Your task to perform on an android device: Add jbl flip 4 to the cart on amazon.com Image 0: 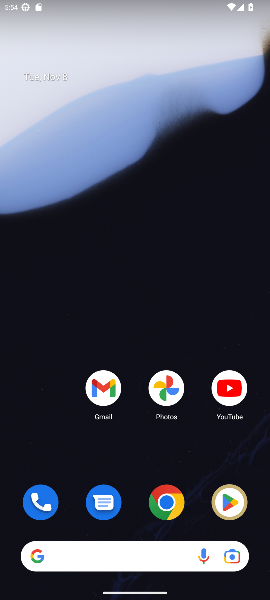
Step 0: drag from (107, 538) to (102, 80)
Your task to perform on an android device: Add jbl flip 4 to the cart on amazon.com Image 1: 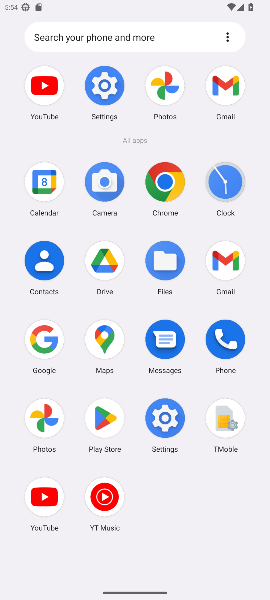
Step 1: click (34, 328)
Your task to perform on an android device: Add jbl flip 4 to the cart on amazon.com Image 2: 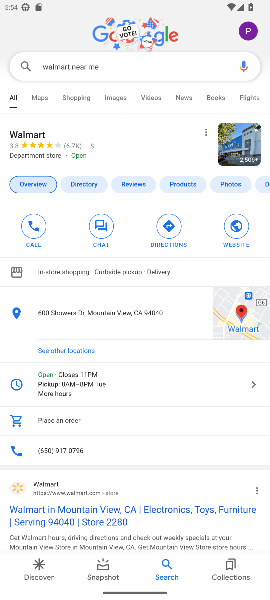
Step 2: click (50, 325)
Your task to perform on an android device: Add jbl flip 4 to the cart on amazon.com Image 3: 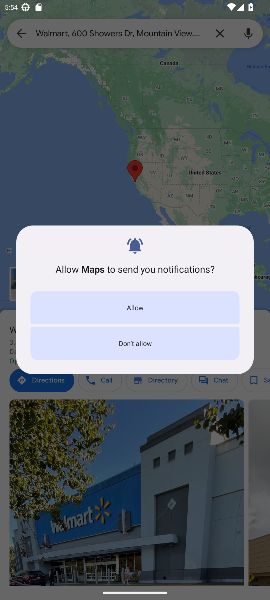
Step 3: press back button
Your task to perform on an android device: Add jbl flip 4 to the cart on amazon.com Image 4: 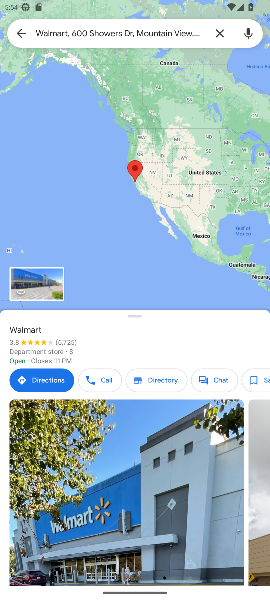
Step 4: press back button
Your task to perform on an android device: Add jbl flip 4 to the cart on amazon.com Image 5: 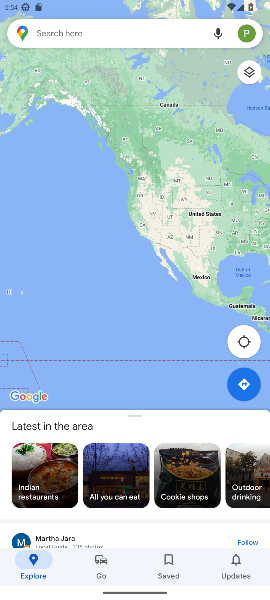
Step 5: press home button
Your task to perform on an android device: Add jbl flip 4 to the cart on amazon.com Image 6: 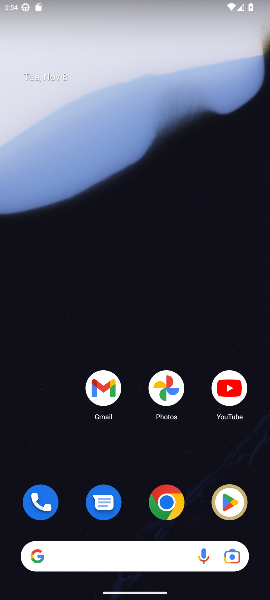
Step 6: drag from (151, 521) to (143, 131)
Your task to perform on an android device: Add jbl flip 4 to the cart on amazon.com Image 7: 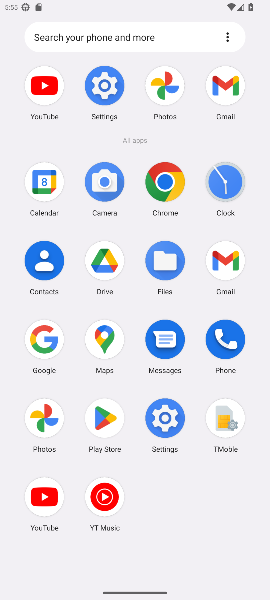
Step 7: click (39, 334)
Your task to perform on an android device: Add jbl flip 4 to the cart on amazon.com Image 8: 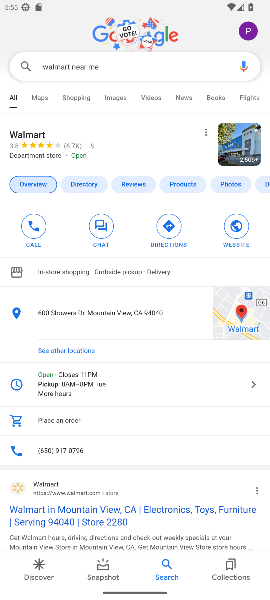
Step 8: click (97, 63)
Your task to perform on an android device: Add jbl flip 4 to the cart on amazon.com Image 9: 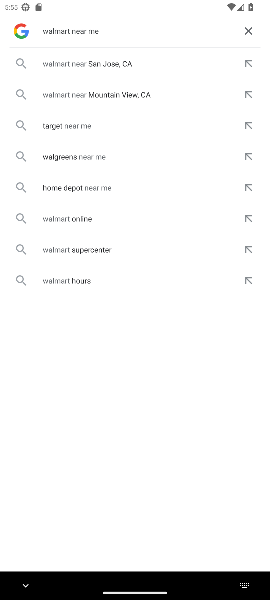
Step 9: click (246, 35)
Your task to perform on an android device: Add jbl flip 4 to the cart on amazon.com Image 10: 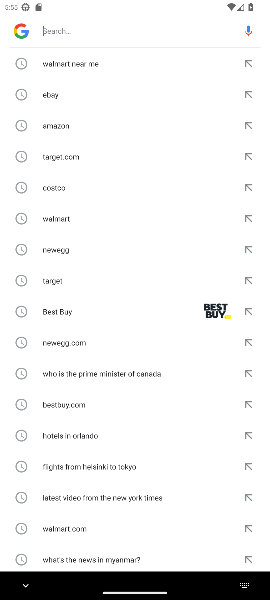
Step 10: click (105, 28)
Your task to perform on an android device: Add jbl flip 4 to the cart on amazon.com Image 11: 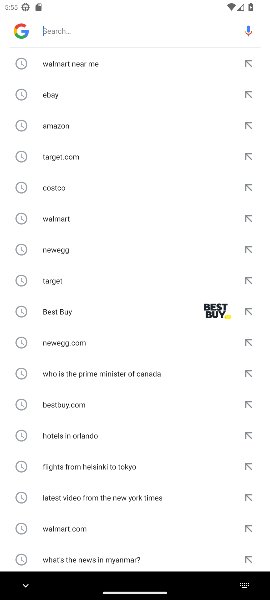
Step 11: type "amazon "
Your task to perform on an android device: Add jbl flip 4 to the cart on amazon.com Image 12: 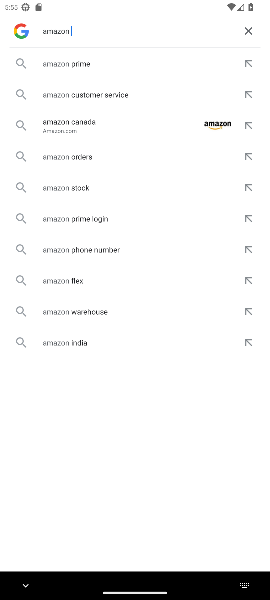
Step 12: click (78, 67)
Your task to perform on an android device: Add jbl flip 4 to the cart on amazon.com Image 13: 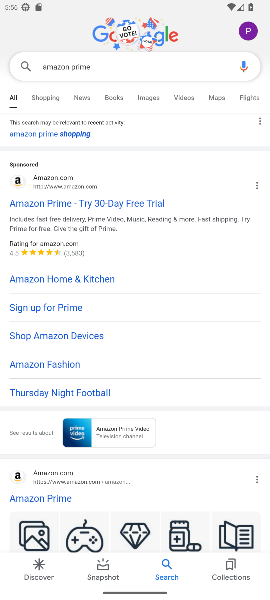
Step 13: click (13, 176)
Your task to perform on an android device: Add jbl flip 4 to the cart on amazon.com Image 14: 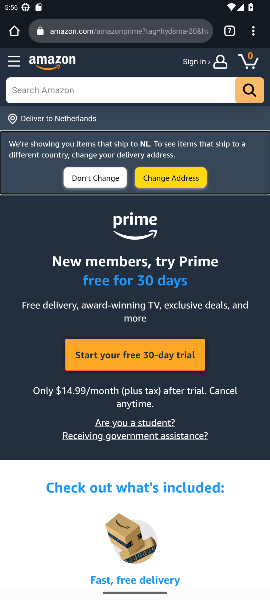
Step 14: click (117, 81)
Your task to perform on an android device: Add jbl flip 4 to the cart on amazon.com Image 15: 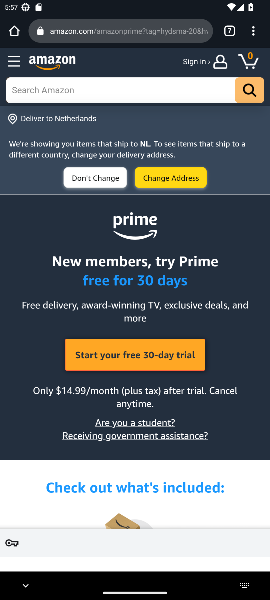
Step 15: type "jbl flip 4 "
Your task to perform on an android device: Add jbl flip 4 to the cart on amazon.com Image 16: 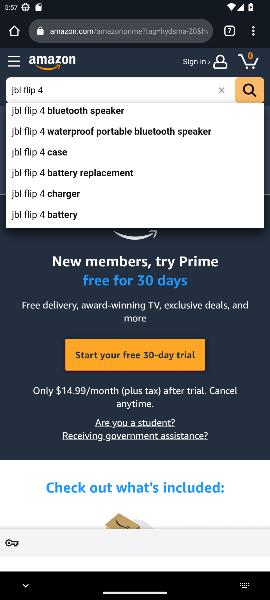
Step 16: click (87, 113)
Your task to perform on an android device: Add jbl flip 4 to the cart on amazon.com Image 17: 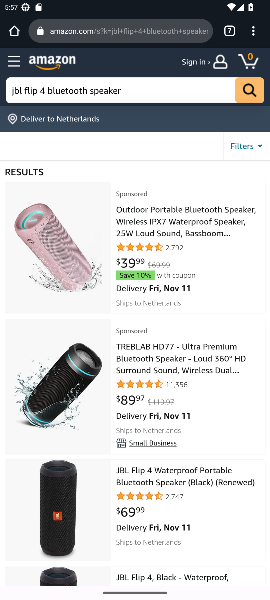
Step 17: click (180, 238)
Your task to perform on an android device: Add jbl flip 4 to the cart on amazon.com Image 18: 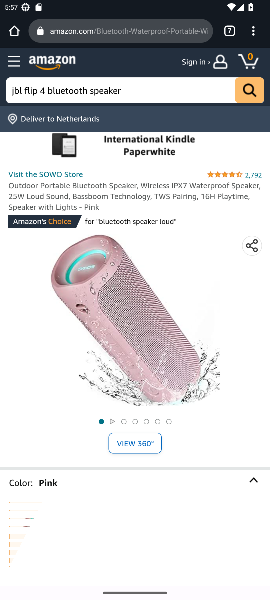
Step 18: drag from (157, 482) to (155, 242)
Your task to perform on an android device: Add jbl flip 4 to the cart on amazon.com Image 19: 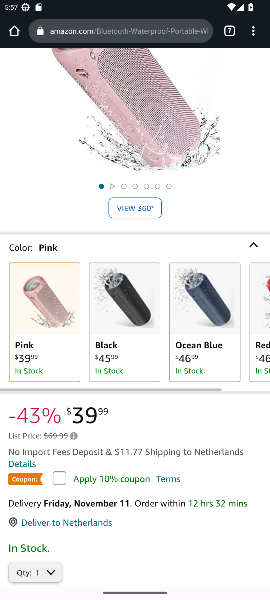
Step 19: drag from (82, 519) to (97, 401)
Your task to perform on an android device: Add jbl flip 4 to the cart on amazon.com Image 20: 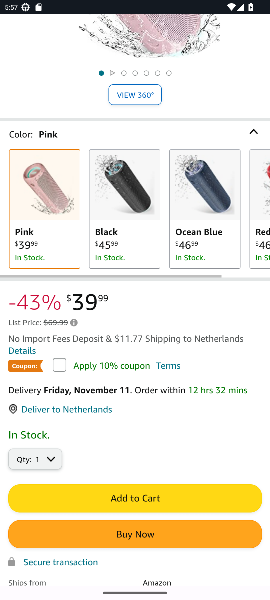
Step 20: click (139, 497)
Your task to perform on an android device: Add jbl flip 4 to the cart on amazon.com Image 21: 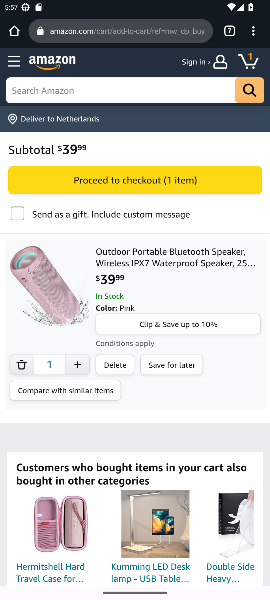
Step 21: task complete